Your task to perform on an android device: uninstall "Pandora - Music & Podcasts" Image 0: 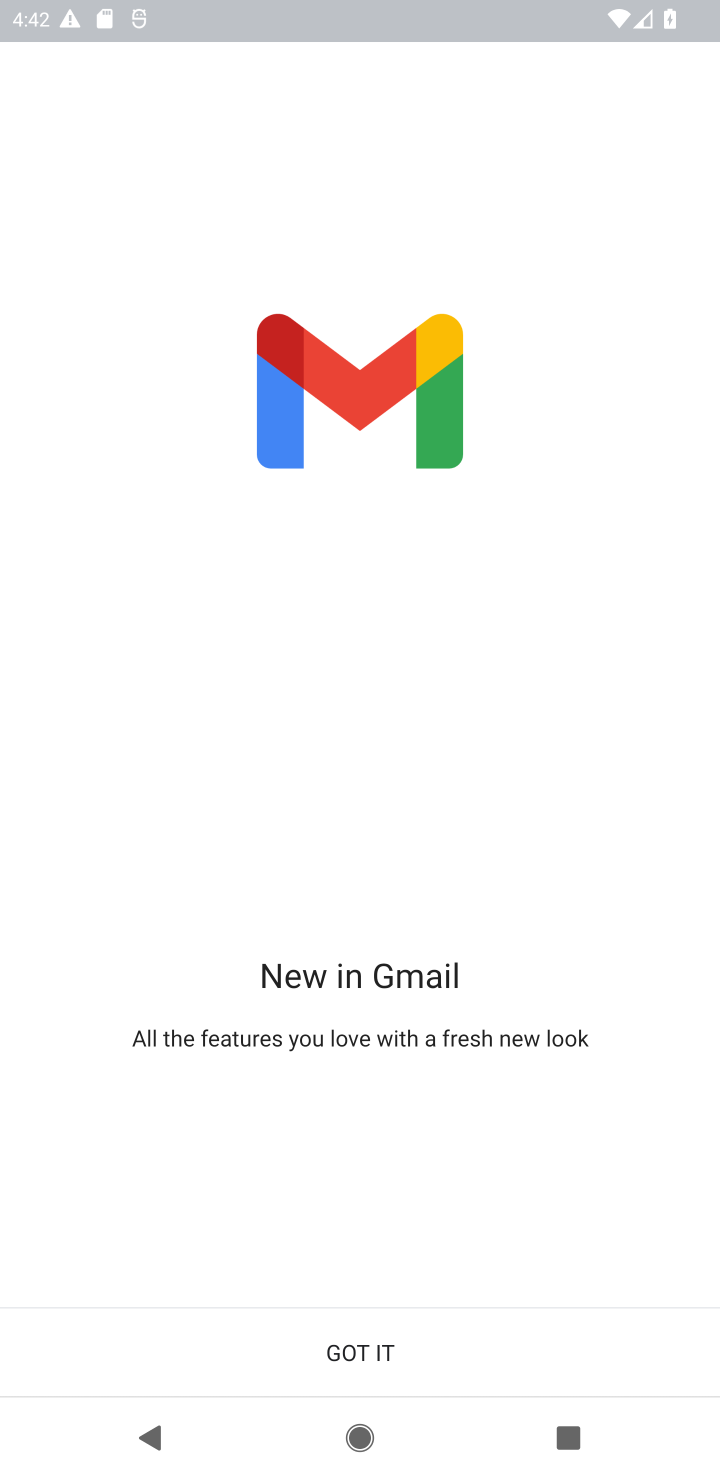
Step 0: press home button
Your task to perform on an android device: uninstall "Pandora - Music & Podcasts" Image 1: 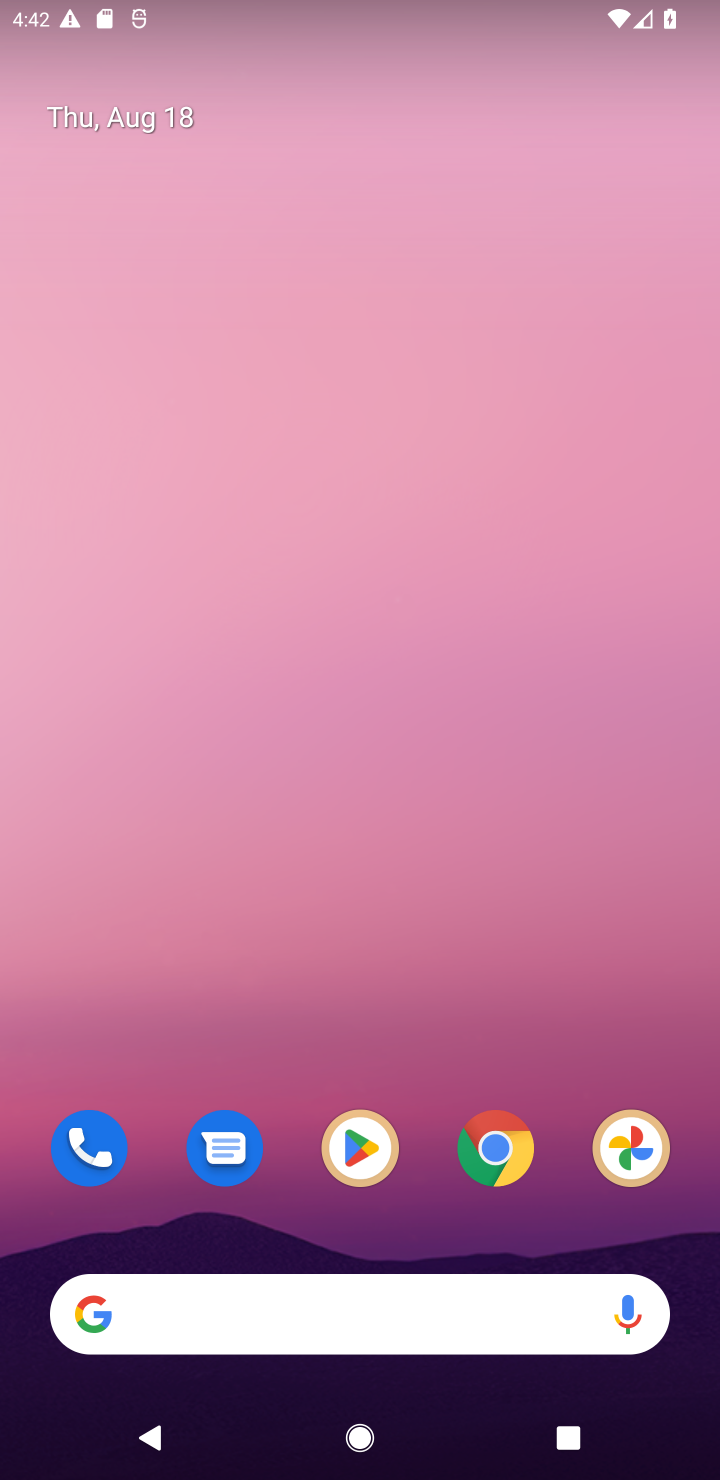
Step 1: drag from (409, 1300) to (431, 99)
Your task to perform on an android device: uninstall "Pandora - Music & Podcasts" Image 2: 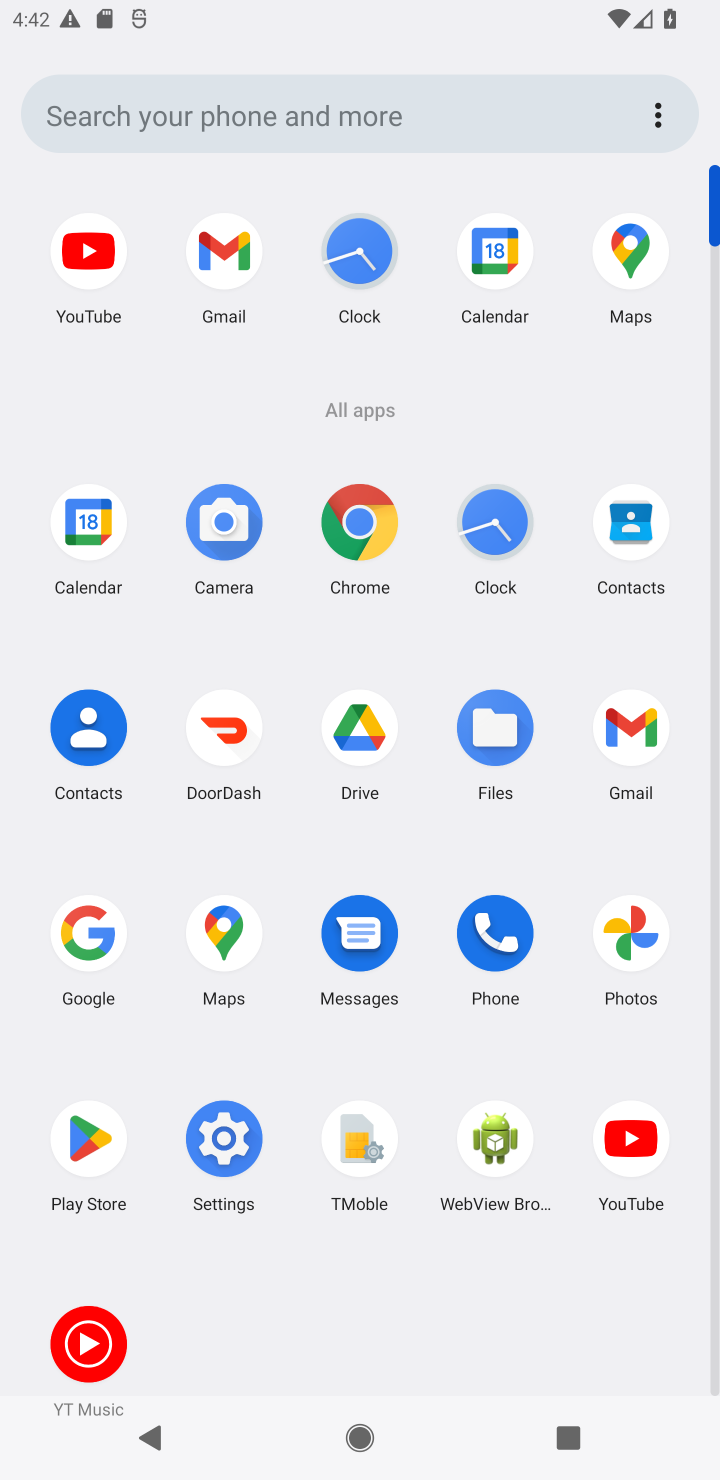
Step 2: click (96, 1133)
Your task to perform on an android device: uninstall "Pandora - Music & Podcasts" Image 3: 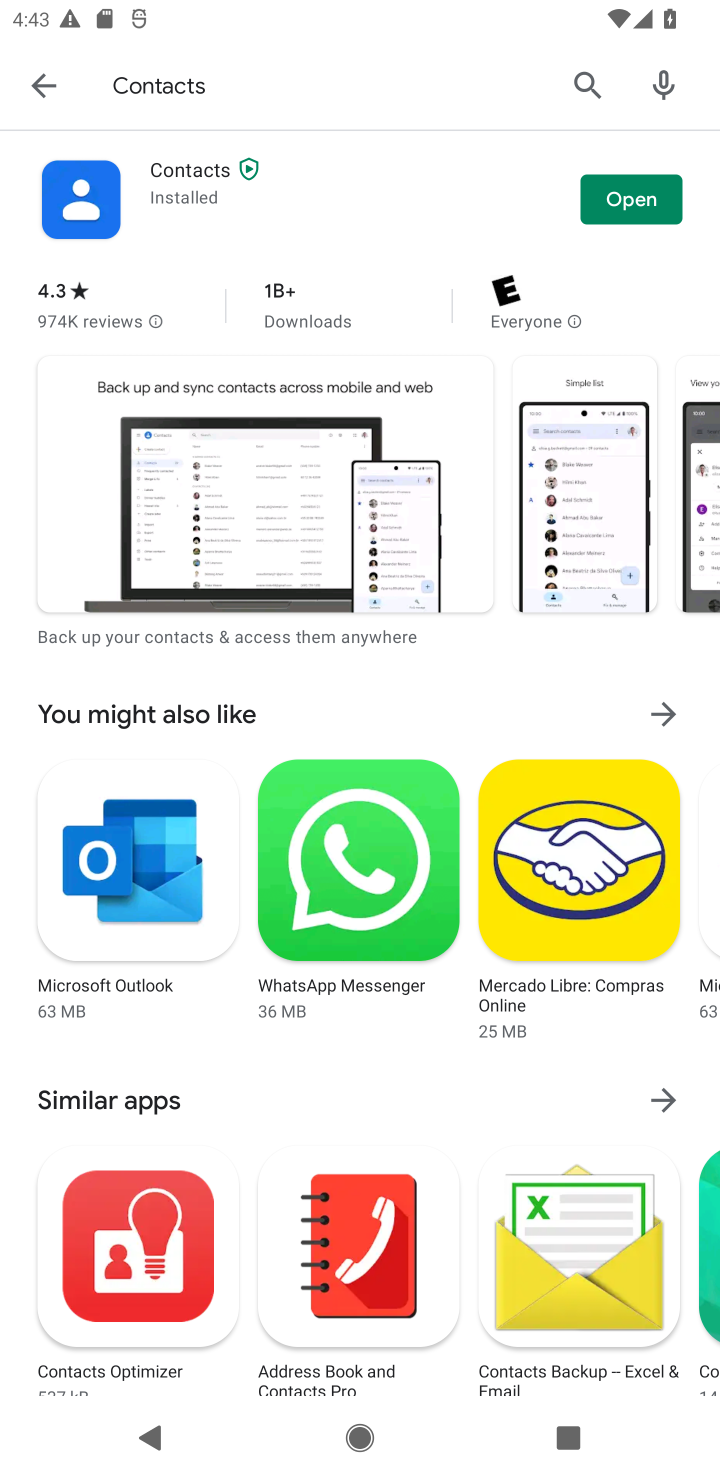
Step 3: click (44, 83)
Your task to perform on an android device: uninstall "Pandora - Music & Podcasts" Image 4: 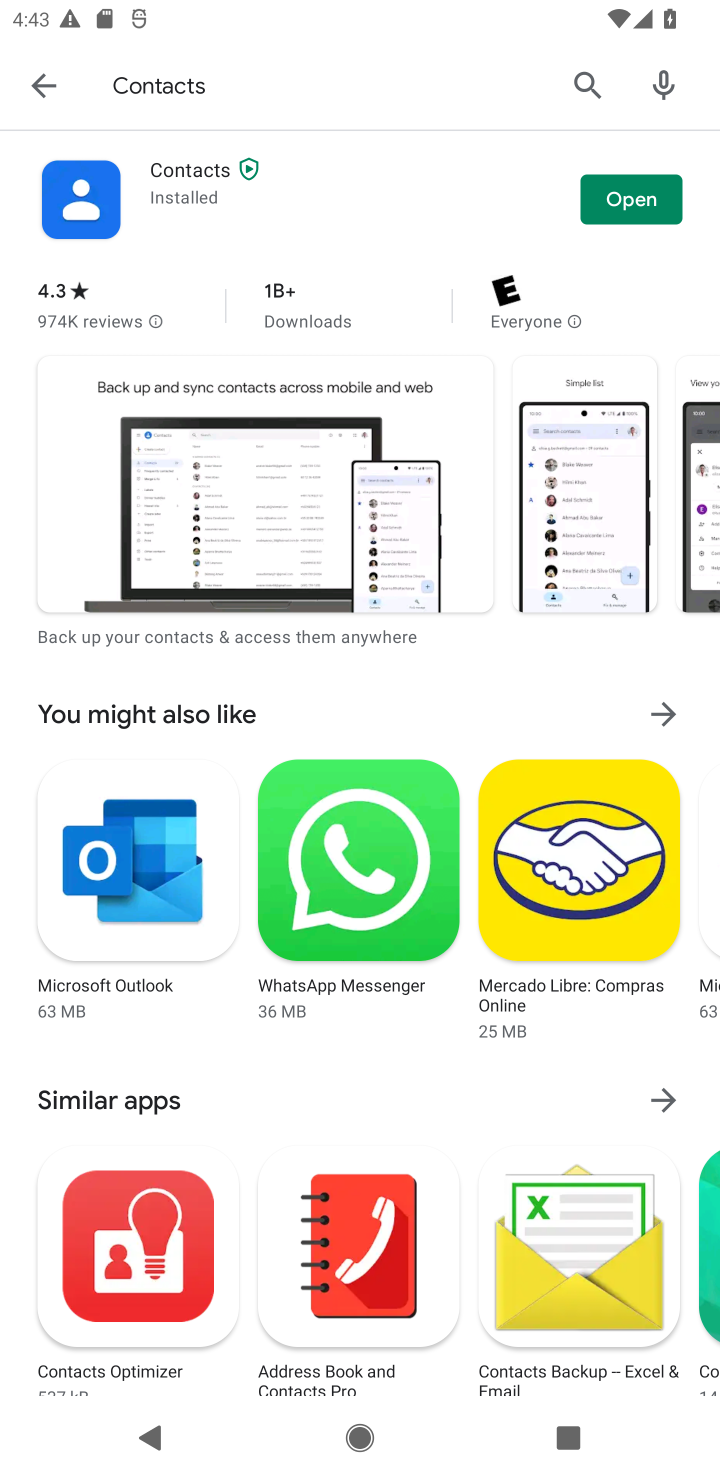
Step 4: click (32, 86)
Your task to perform on an android device: uninstall "Pandora - Music & Podcasts" Image 5: 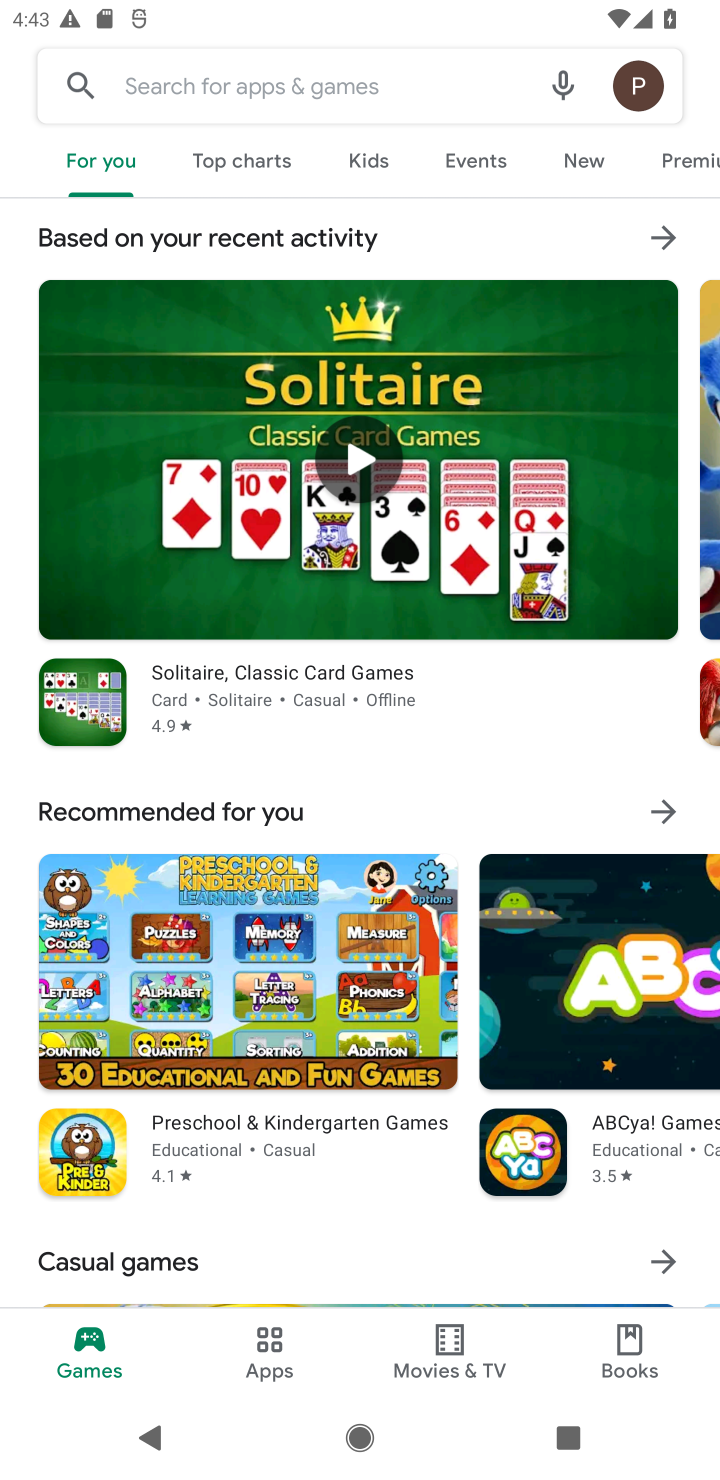
Step 5: click (282, 72)
Your task to perform on an android device: uninstall "Pandora - Music & Podcasts" Image 6: 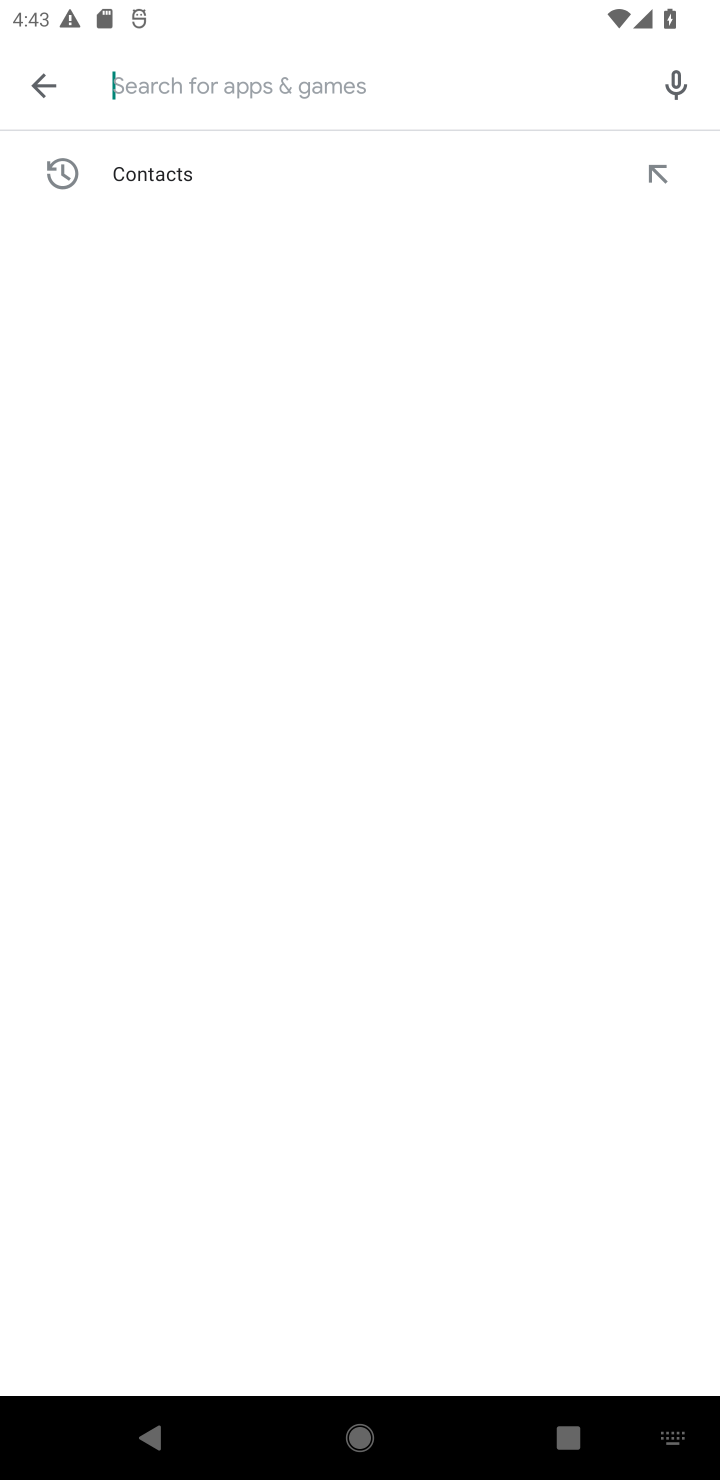
Step 6: type "Pandora - Music & Podcasts"
Your task to perform on an android device: uninstall "Pandora - Music & Podcasts" Image 7: 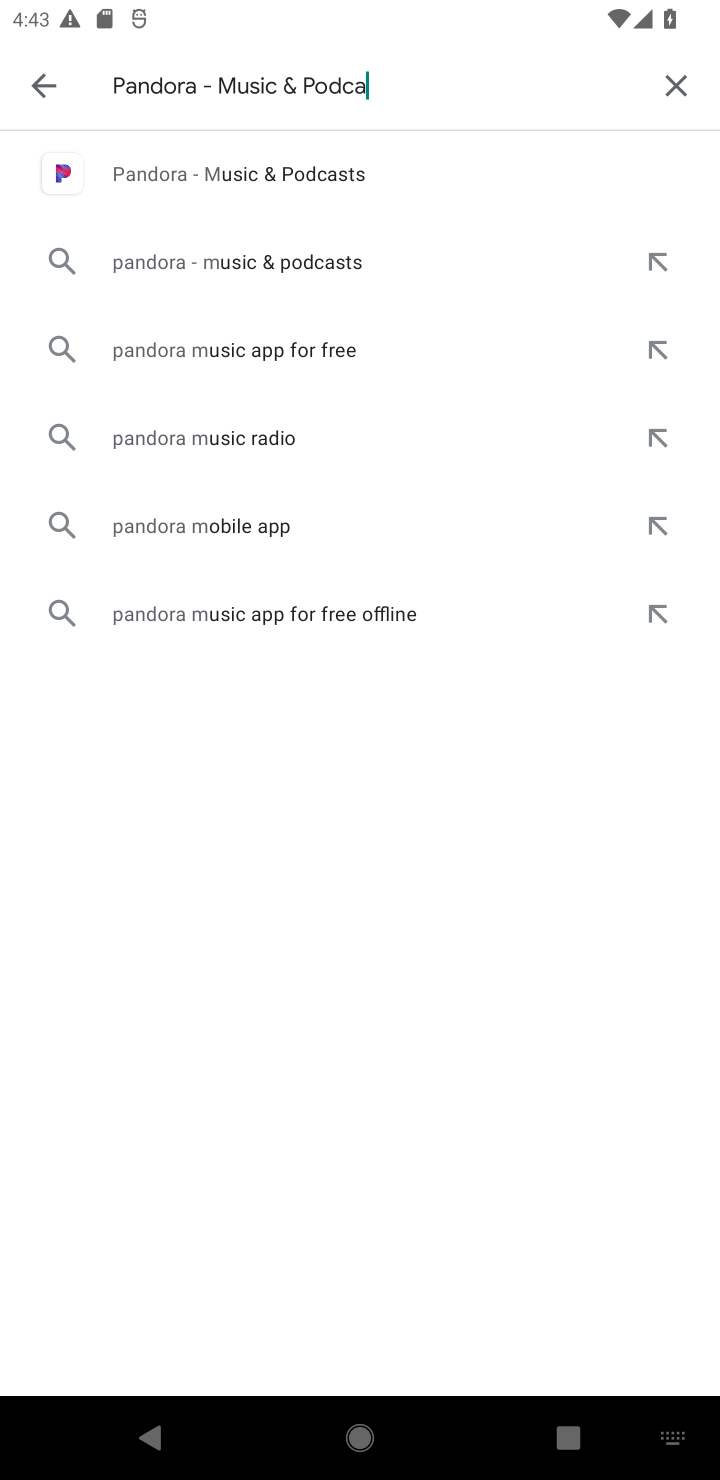
Step 7: press enter
Your task to perform on an android device: uninstall "Pandora - Music & Podcasts" Image 8: 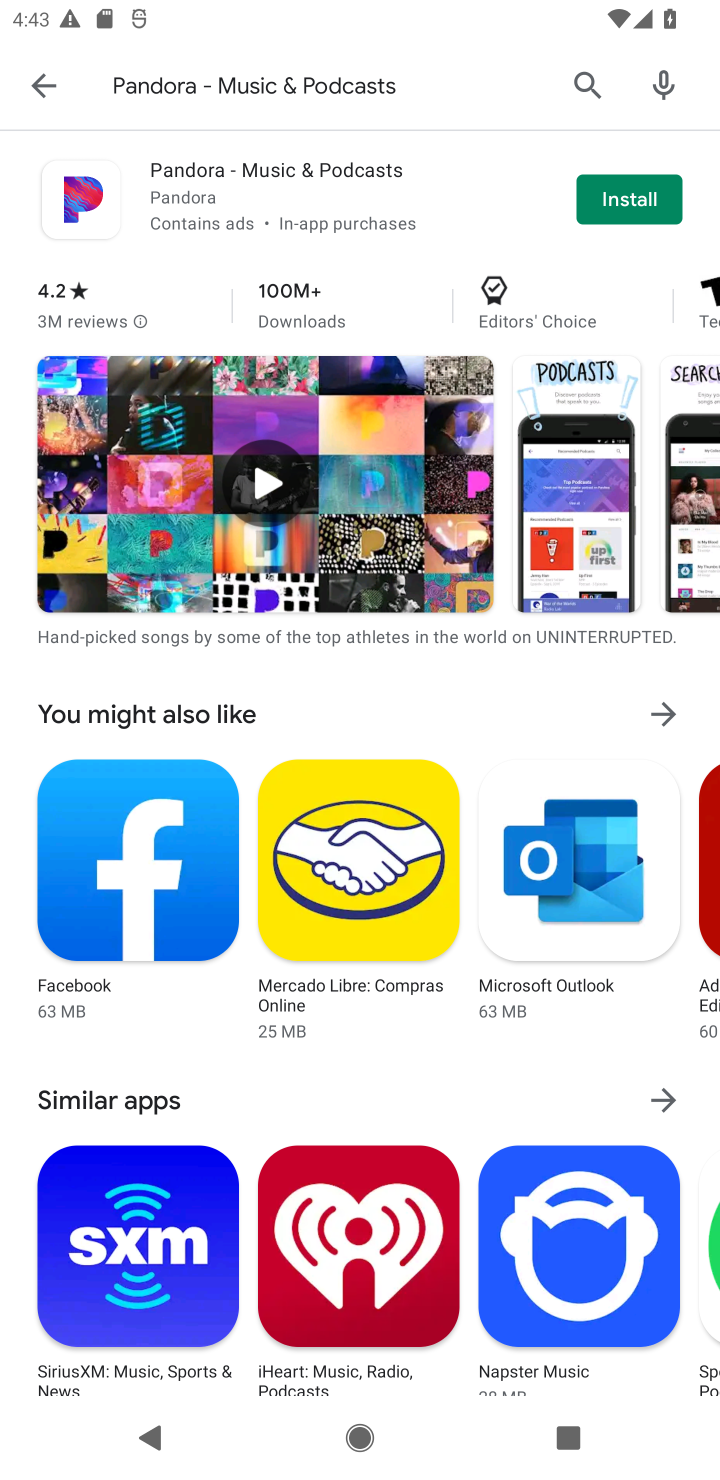
Step 8: task complete